Your task to perform on an android device: Go to CNN.com Image 0: 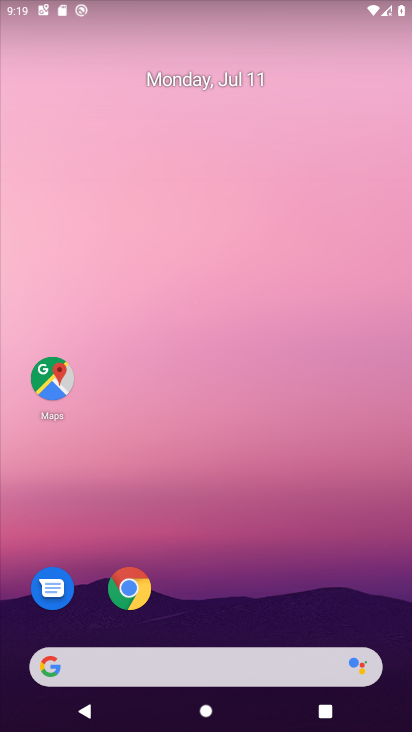
Step 0: drag from (249, 616) to (191, 189)
Your task to perform on an android device: Go to CNN.com Image 1: 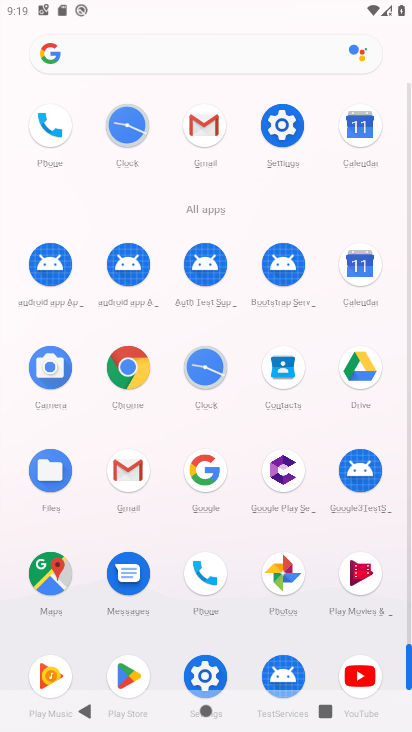
Step 1: click (126, 362)
Your task to perform on an android device: Go to CNN.com Image 2: 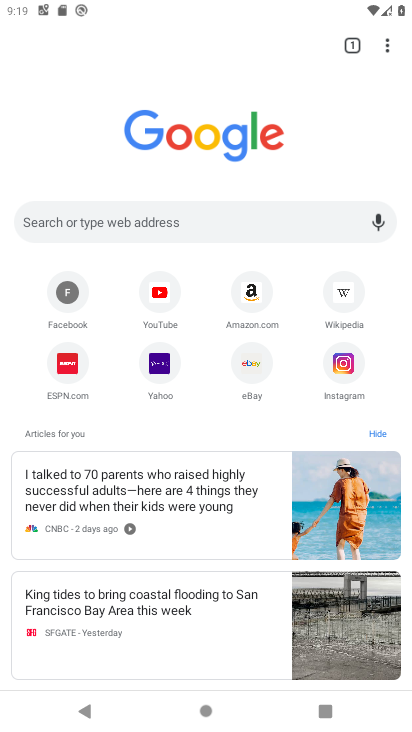
Step 2: click (121, 220)
Your task to perform on an android device: Go to CNN.com Image 3: 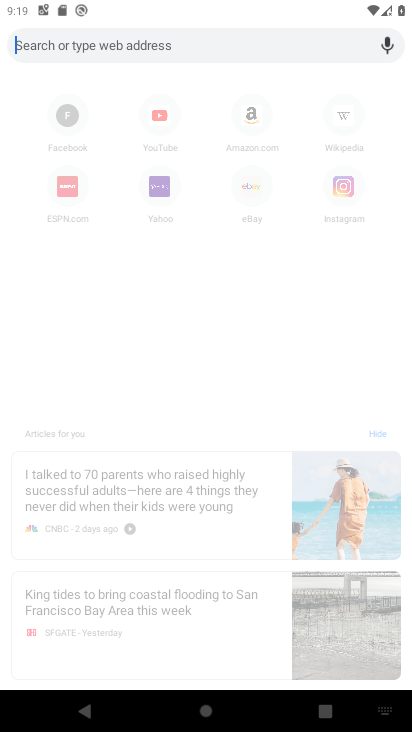
Step 3: type " CNN.com "
Your task to perform on an android device: Go to CNN.com Image 4: 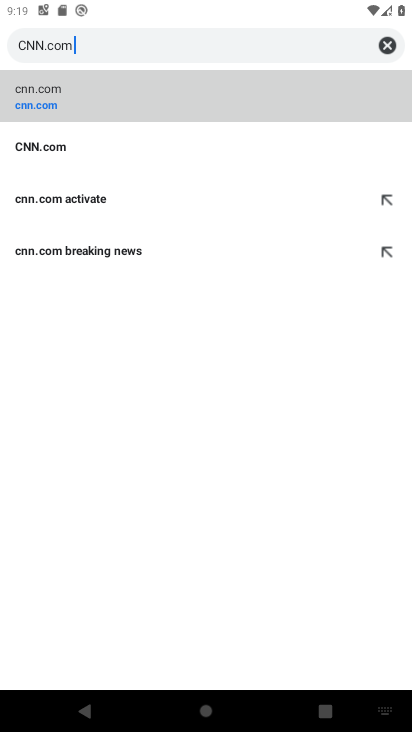
Step 4: click (101, 88)
Your task to perform on an android device: Go to CNN.com Image 5: 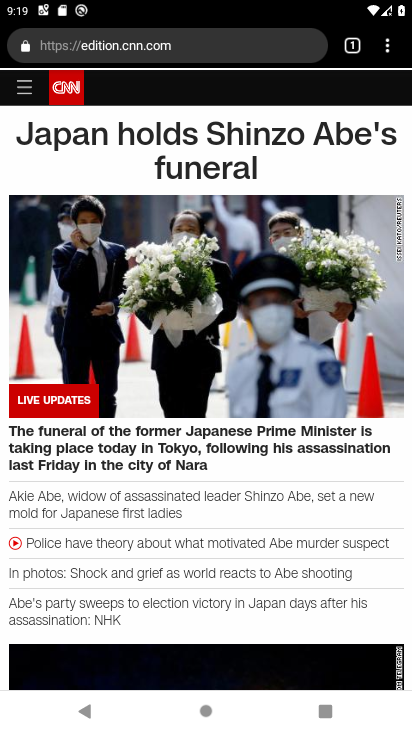
Step 5: task complete